Your task to perform on an android device: change the clock display to show seconds Image 0: 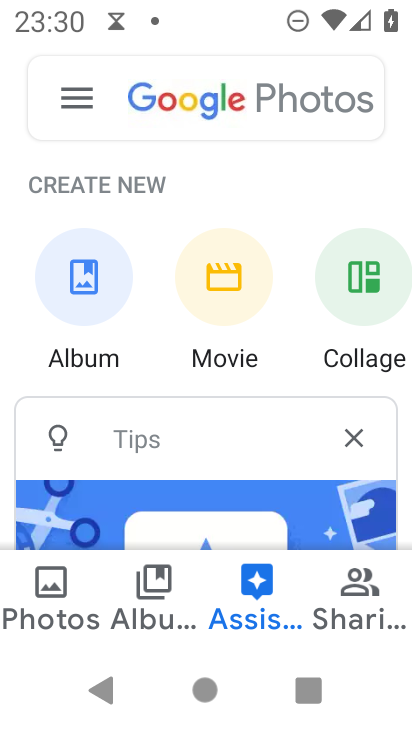
Step 0: press home button
Your task to perform on an android device: change the clock display to show seconds Image 1: 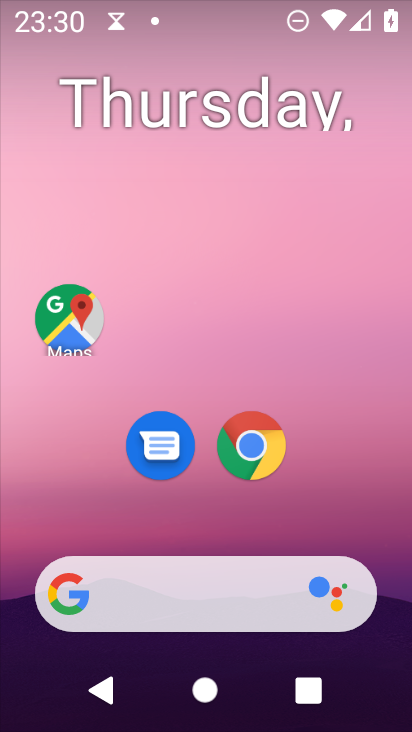
Step 1: drag from (242, 727) to (231, 35)
Your task to perform on an android device: change the clock display to show seconds Image 2: 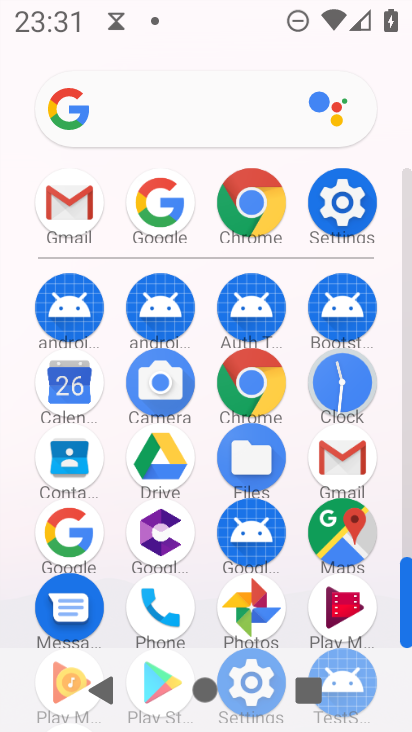
Step 2: click (346, 384)
Your task to perform on an android device: change the clock display to show seconds Image 3: 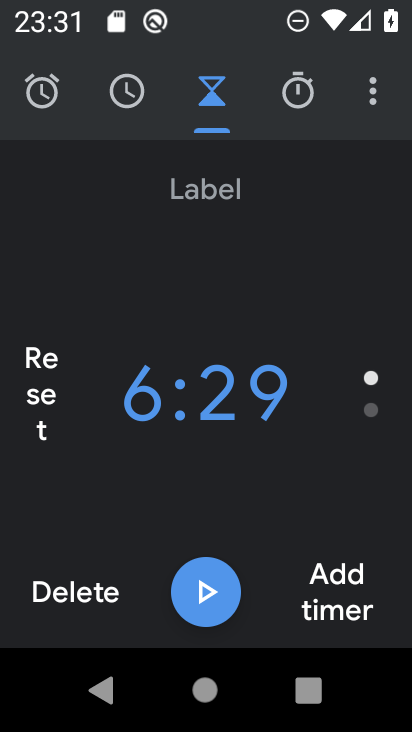
Step 3: click (374, 98)
Your task to perform on an android device: change the clock display to show seconds Image 4: 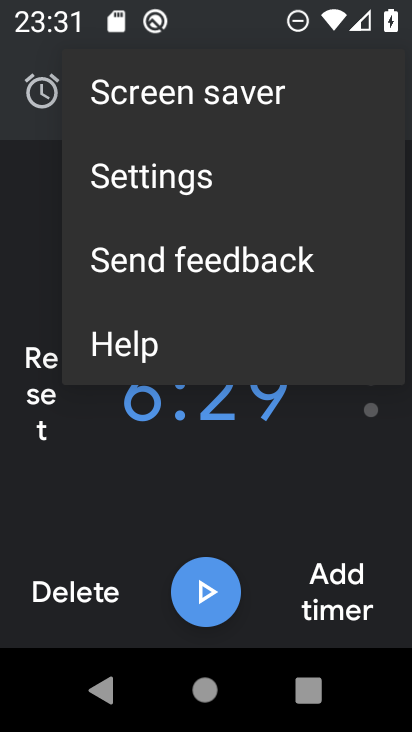
Step 4: click (169, 181)
Your task to perform on an android device: change the clock display to show seconds Image 5: 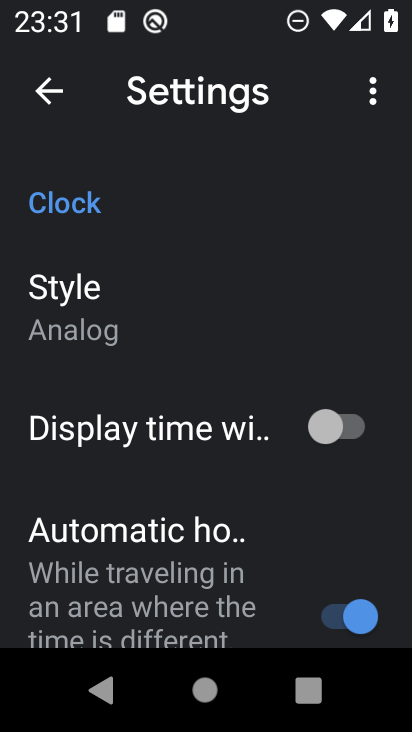
Step 5: click (359, 423)
Your task to perform on an android device: change the clock display to show seconds Image 6: 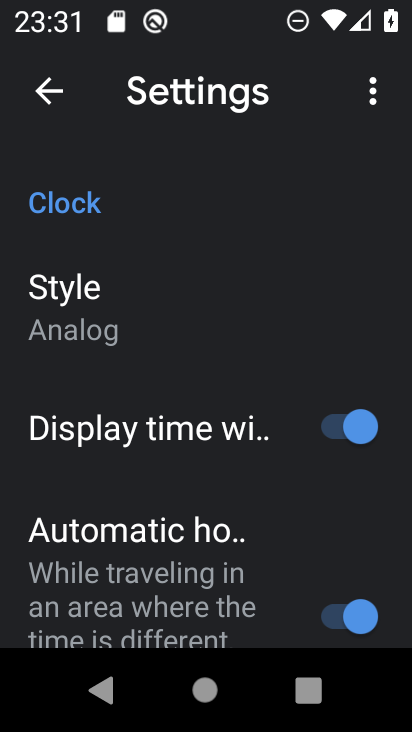
Step 6: task complete